Your task to perform on an android device: Clear the cart on ebay. Image 0: 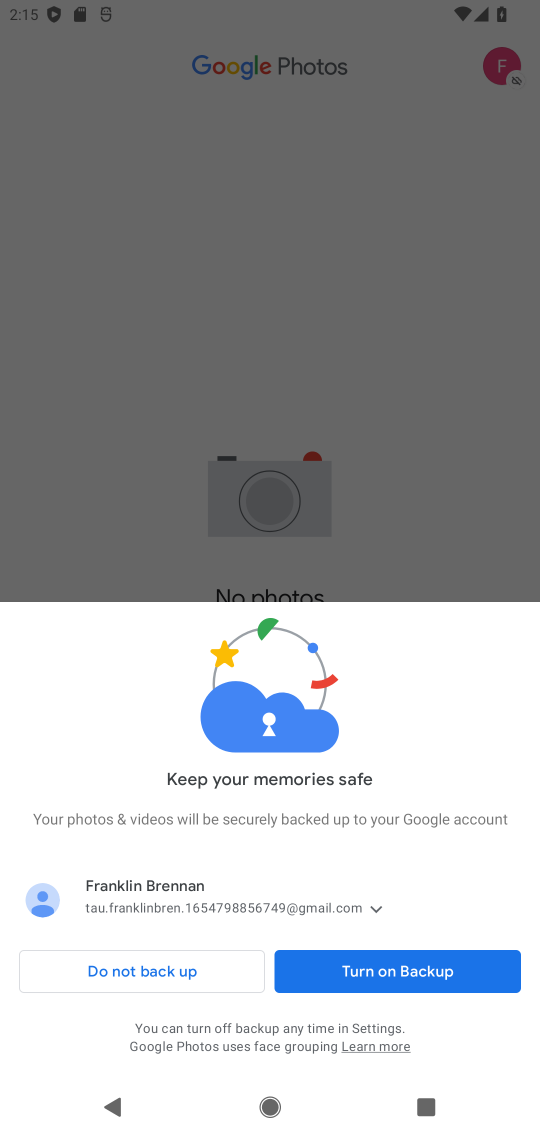
Step 0: press home button
Your task to perform on an android device: Clear the cart on ebay. Image 1: 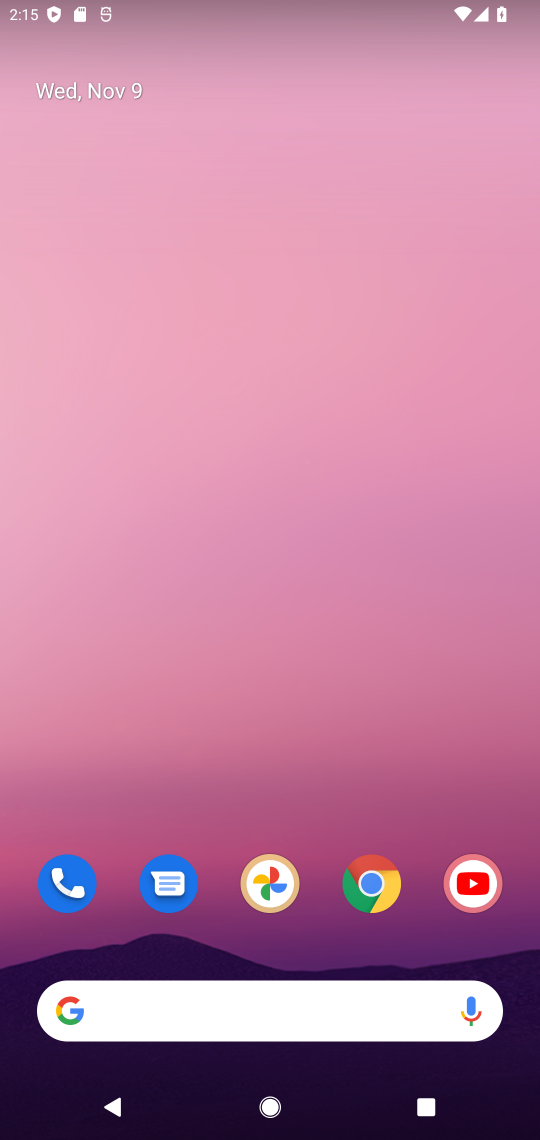
Step 1: click (363, 893)
Your task to perform on an android device: Clear the cart on ebay. Image 2: 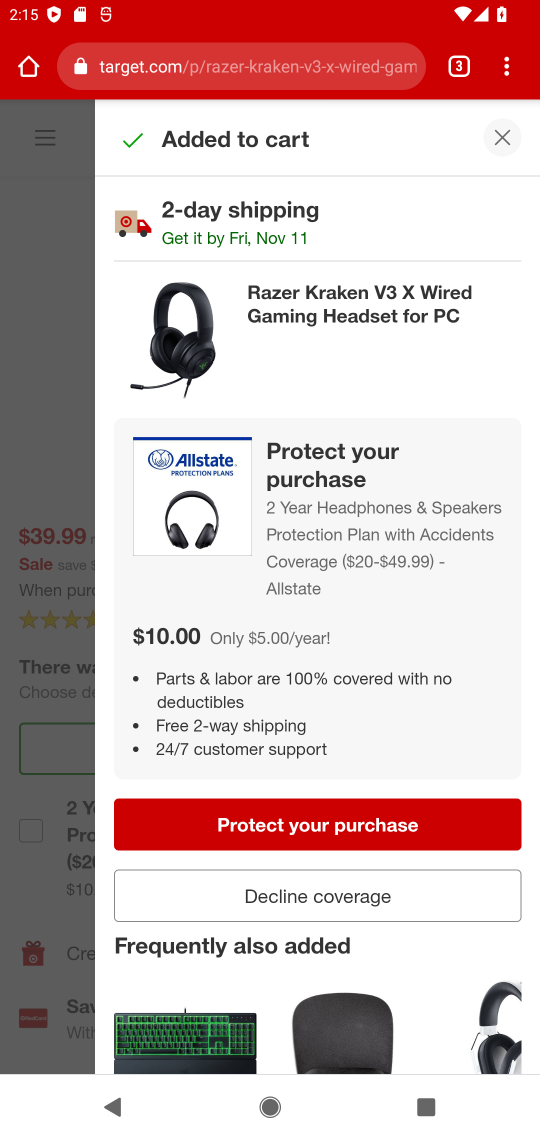
Step 2: click (464, 69)
Your task to perform on an android device: Clear the cart on ebay. Image 3: 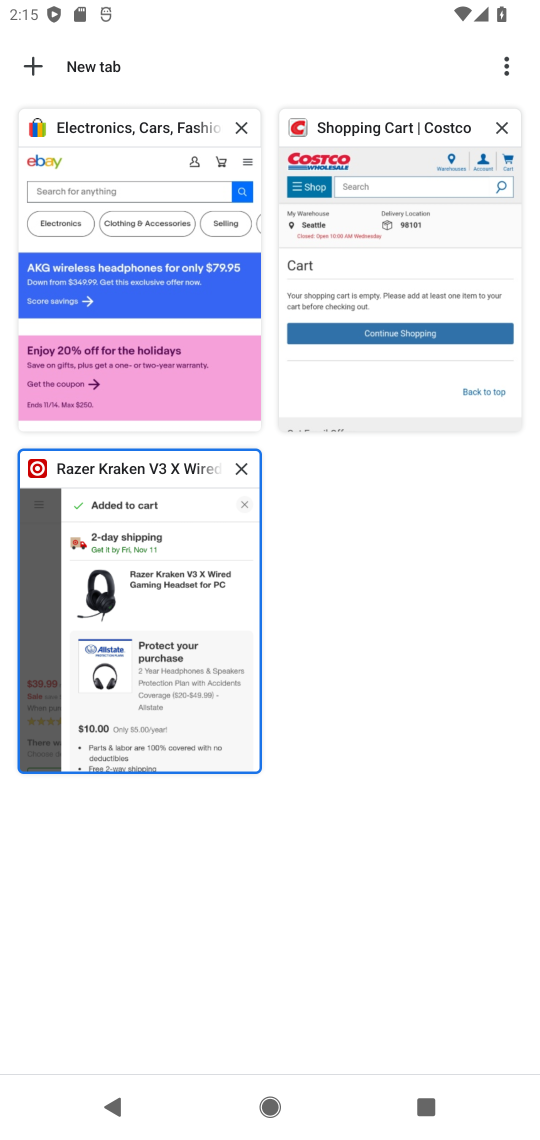
Step 3: click (67, 202)
Your task to perform on an android device: Clear the cart on ebay. Image 4: 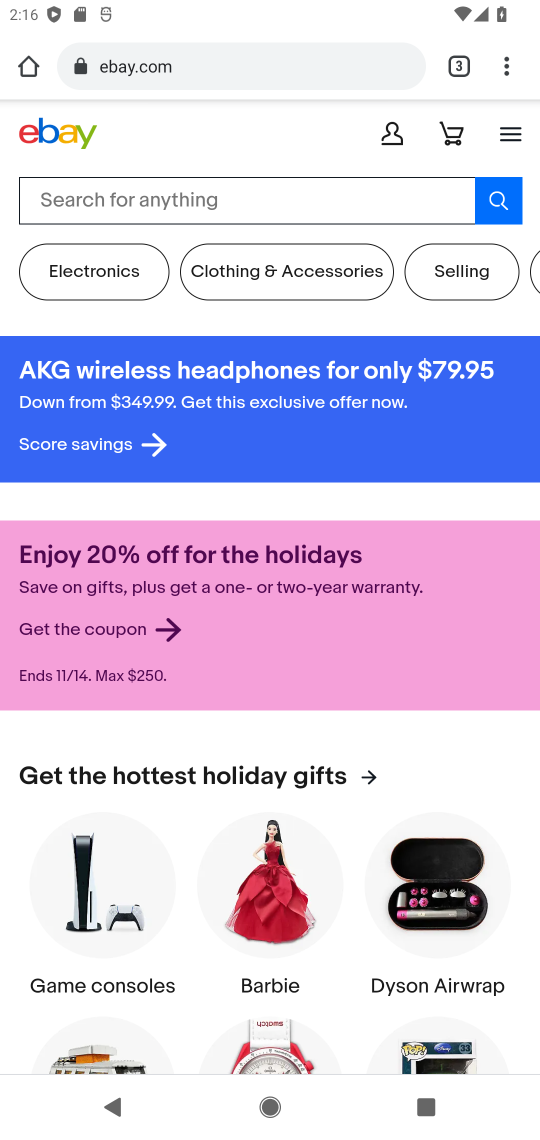
Step 4: task complete